Your task to perform on an android device: Open battery settings Image 0: 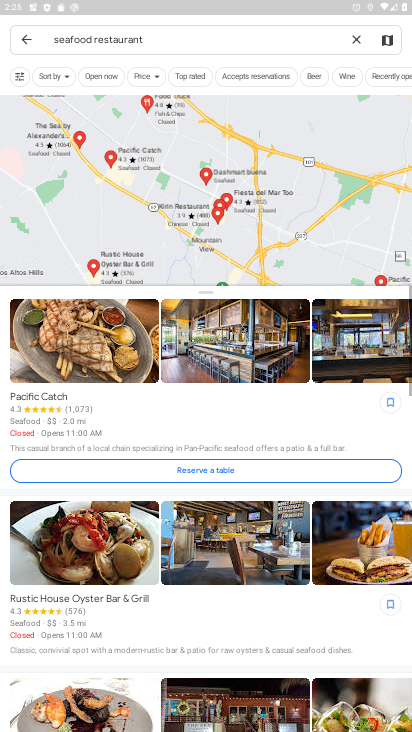
Step 0: press home button
Your task to perform on an android device: Open battery settings Image 1: 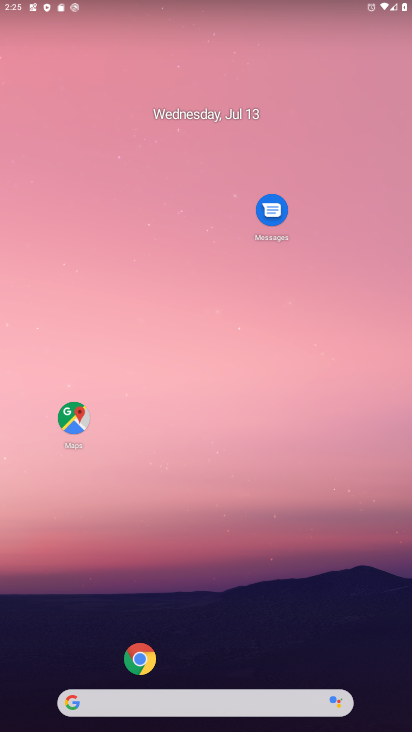
Step 1: drag from (22, 677) to (255, 4)
Your task to perform on an android device: Open battery settings Image 2: 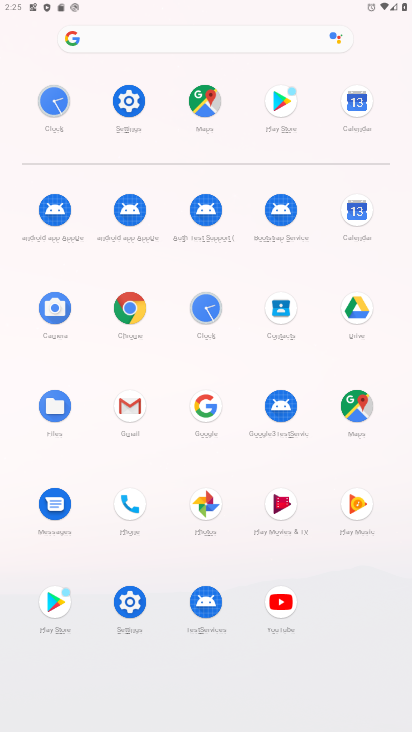
Step 2: click (133, 602)
Your task to perform on an android device: Open battery settings Image 3: 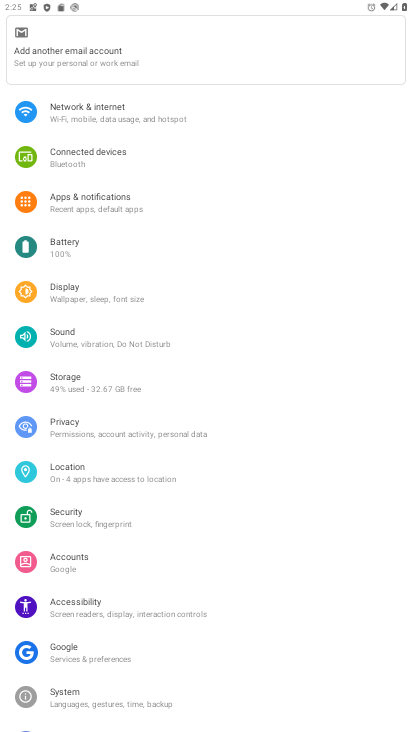
Step 3: click (87, 238)
Your task to perform on an android device: Open battery settings Image 4: 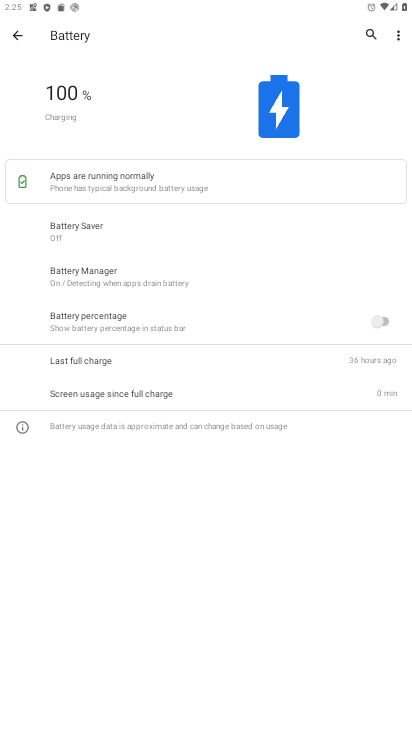
Step 4: task complete